Your task to perform on an android device: Open the Play Movies app and select the watchlist tab. Image 0: 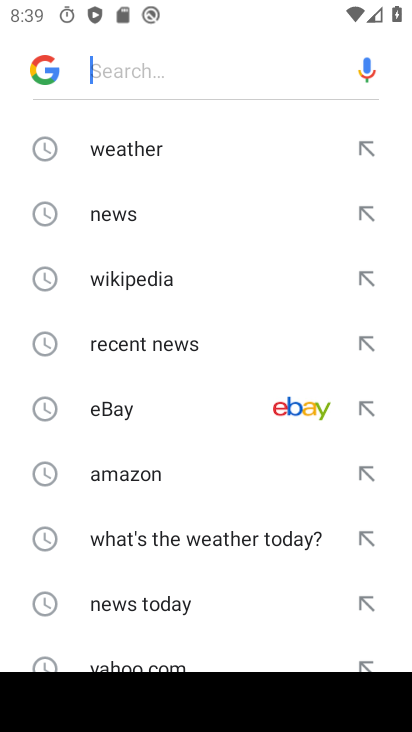
Step 0: press home button
Your task to perform on an android device: Open the Play Movies app and select the watchlist tab. Image 1: 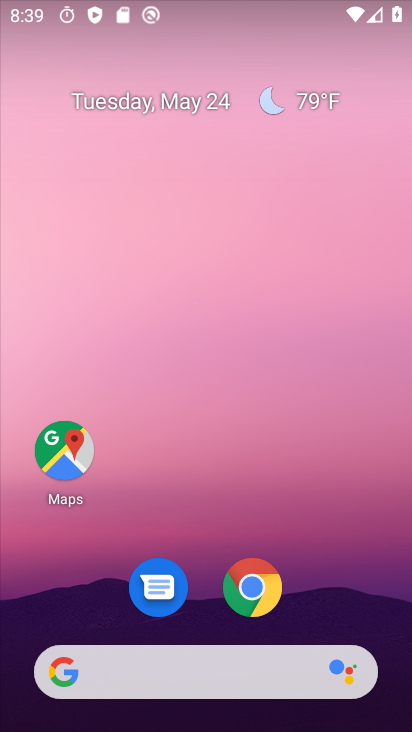
Step 1: drag from (331, 604) to (249, 177)
Your task to perform on an android device: Open the Play Movies app and select the watchlist tab. Image 2: 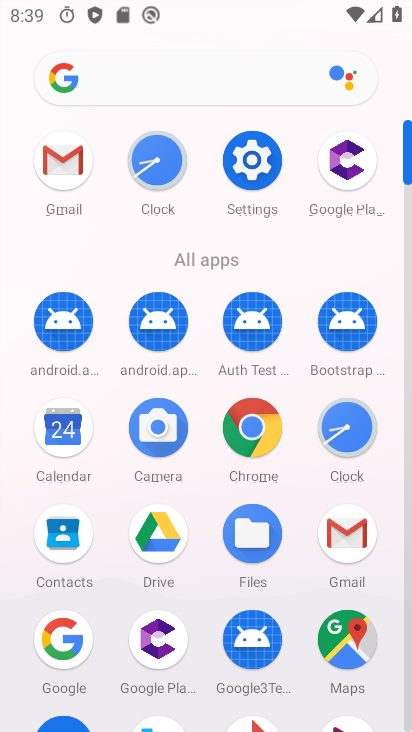
Step 2: drag from (289, 606) to (303, 348)
Your task to perform on an android device: Open the Play Movies app and select the watchlist tab. Image 3: 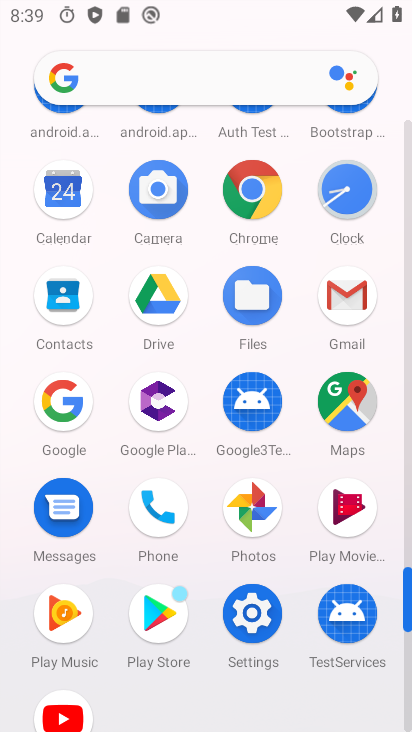
Step 3: click (348, 505)
Your task to perform on an android device: Open the Play Movies app and select the watchlist tab. Image 4: 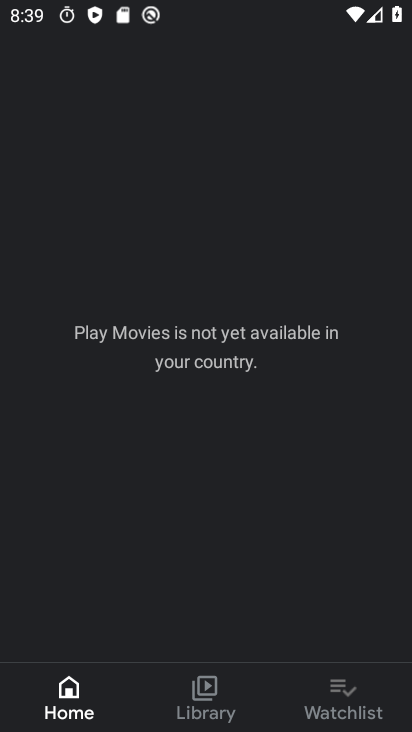
Step 4: click (346, 688)
Your task to perform on an android device: Open the Play Movies app and select the watchlist tab. Image 5: 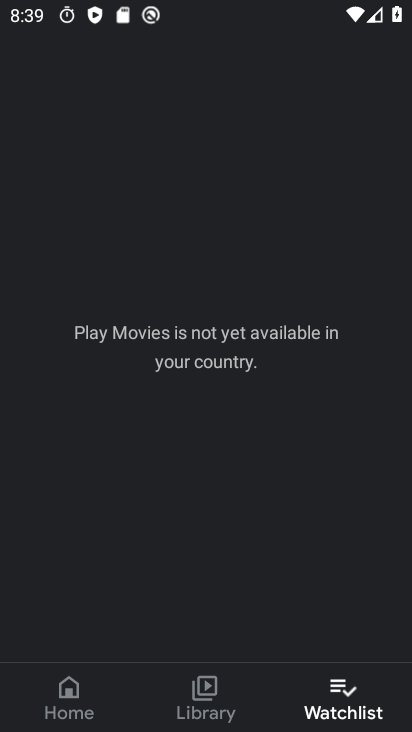
Step 5: task complete